Your task to perform on an android device: find photos in the google photos app Image 0: 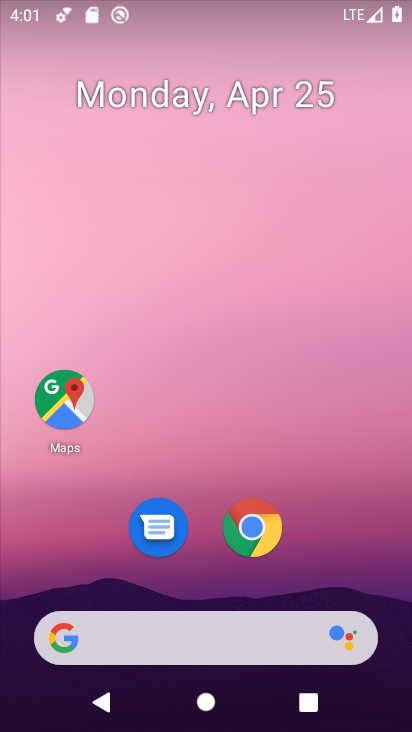
Step 0: drag from (390, 627) to (318, 168)
Your task to perform on an android device: find photos in the google photos app Image 1: 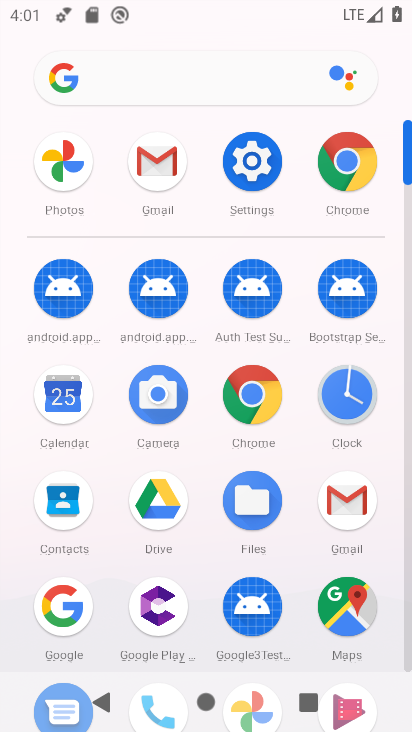
Step 1: click (408, 656)
Your task to perform on an android device: find photos in the google photos app Image 2: 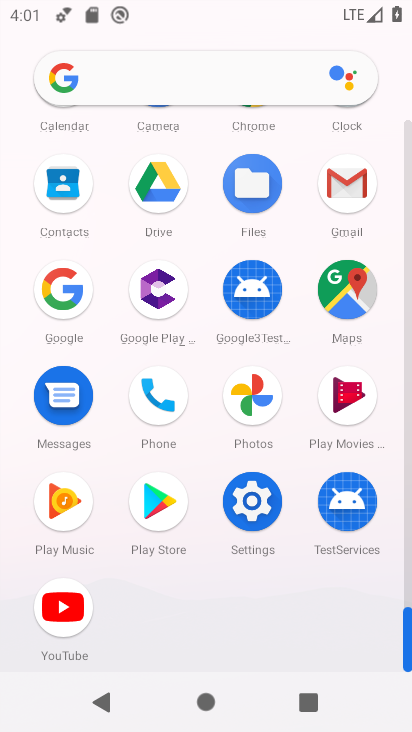
Step 2: click (253, 395)
Your task to perform on an android device: find photos in the google photos app Image 3: 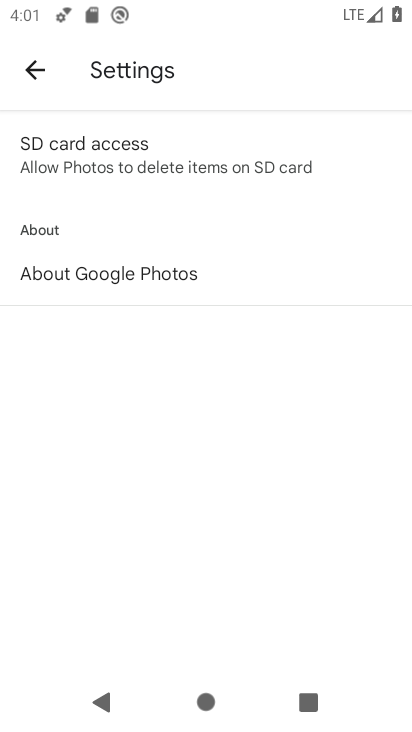
Step 3: press back button
Your task to perform on an android device: find photos in the google photos app Image 4: 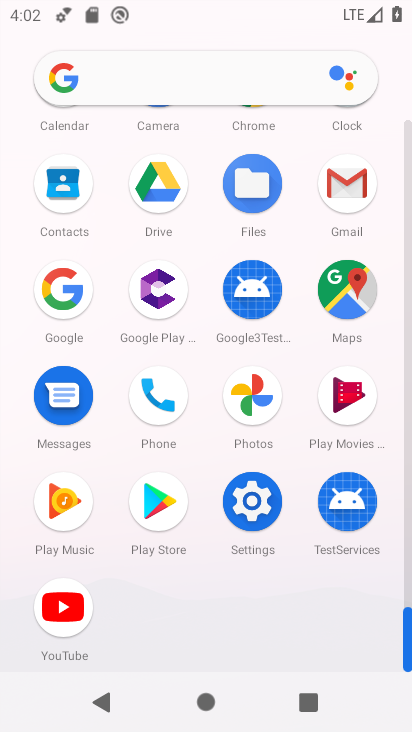
Step 4: click (254, 394)
Your task to perform on an android device: find photos in the google photos app Image 5: 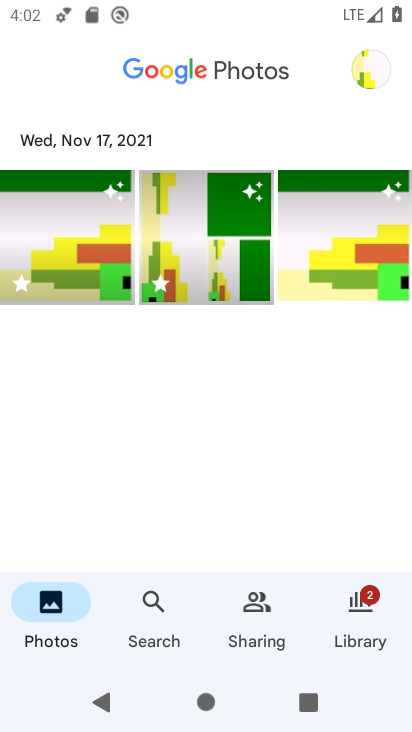
Step 5: task complete